Your task to perform on an android device: set the stopwatch Image 0: 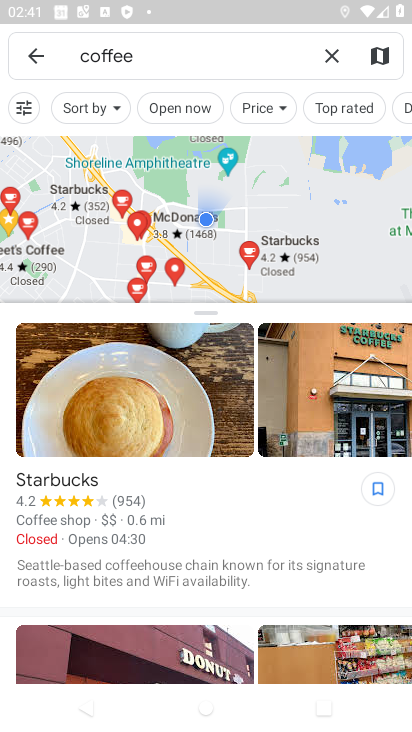
Step 0: press back button
Your task to perform on an android device: set the stopwatch Image 1: 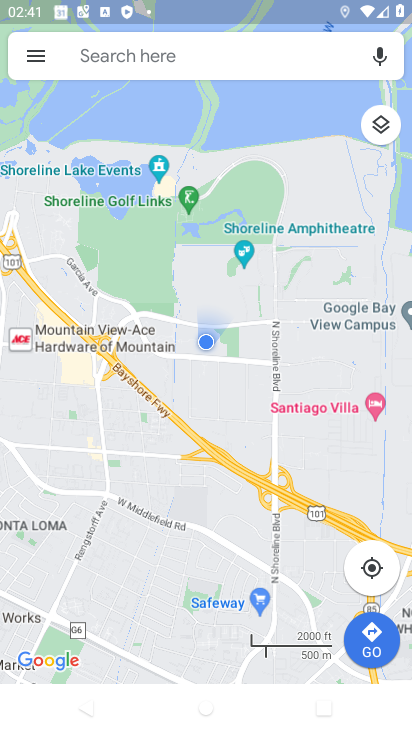
Step 1: press back button
Your task to perform on an android device: set the stopwatch Image 2: 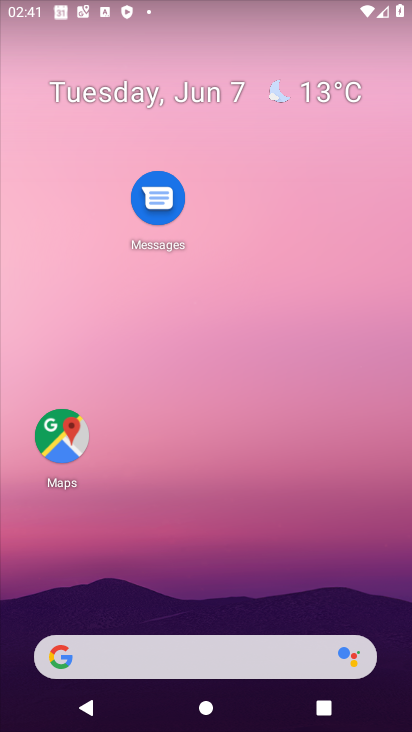
Step 2: drag from (205, 570) to (184, 18)
Your task to perform on an android device: set the stopwatch Image 3: 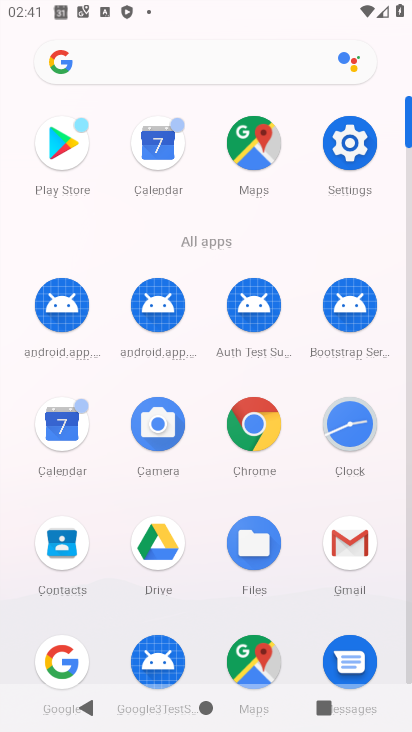
Step 3: click (348, 452)
Your task to perform on an android device: set the stopwatch Image 4: 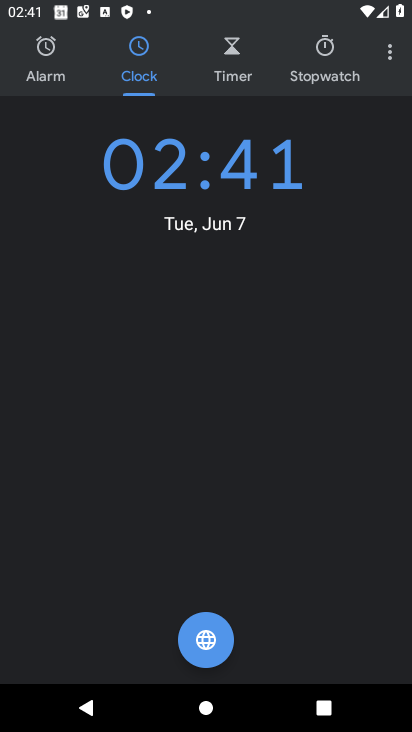
Step 4: click (325, 81)
Your task to perform on an android device: set the stopwatch Image 5: 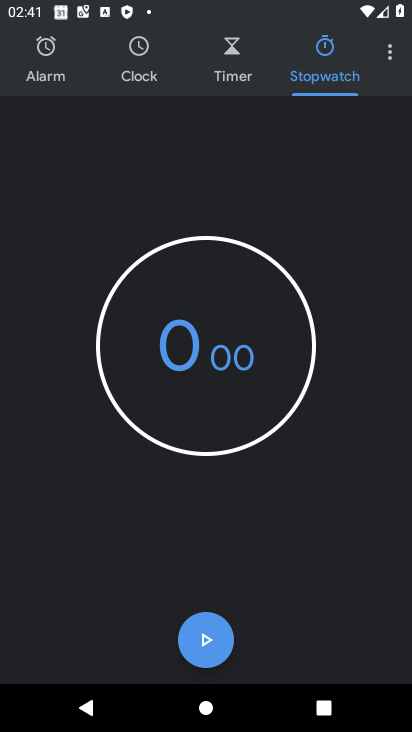
Step 5: click (194, 646)
Your task to perform on an android device: set the stopwatch Image 6: 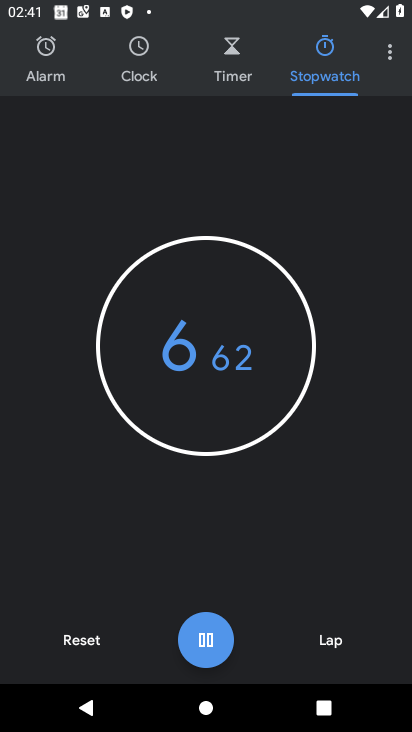
Step 6: click (224, 652)
Your task to perform on an android device: set the stopwatch Image 7: 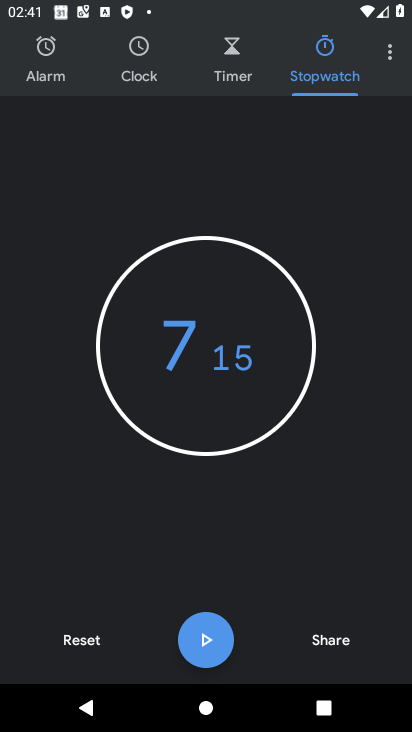
Step 7: task complete